Your task to perform on an android device: Search for Mexican restaurants on Maps Image 0: 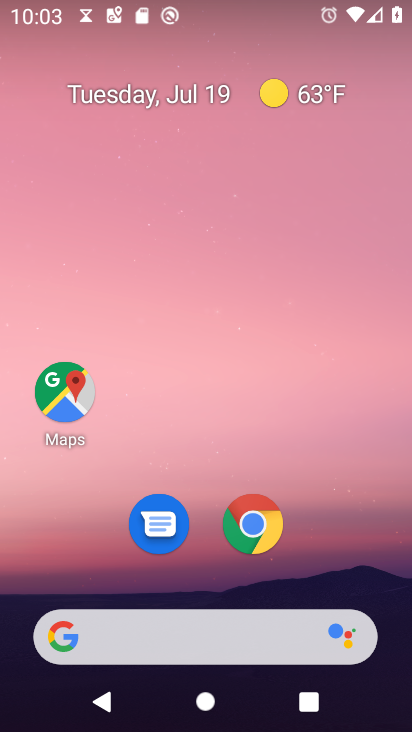
Step 0: press home button
Your task to perform on an android device: Search for Mexican restaurants on Maps Image 1: 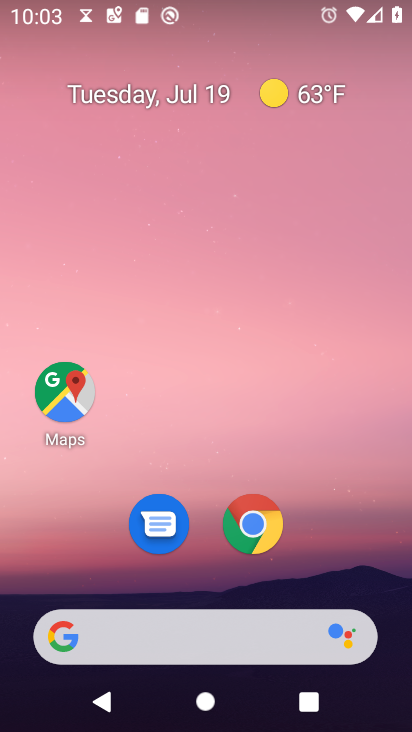
Step 1: click (63, 389)
Your task to perform on an android device: Search for Mexican restaurants on Maps Image 2: 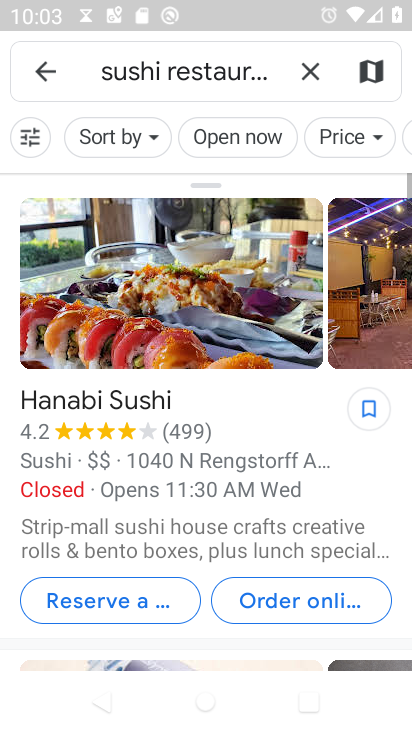
Step 2: click (310, 66)
Your task to perform on an android device: Search for Mexican restaurants on Maps Image 3: 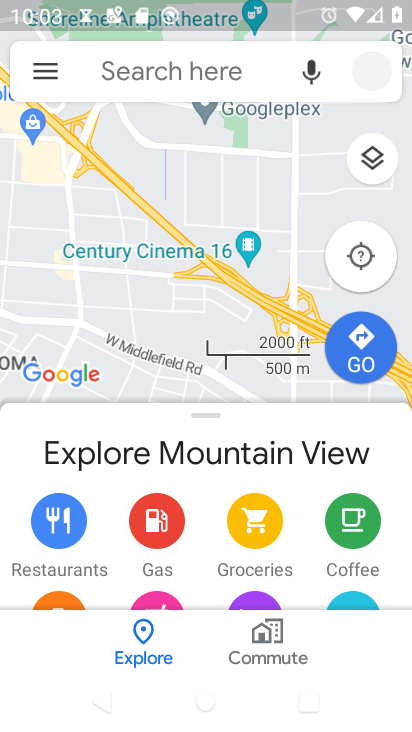
Step 3: click (140, 71)
Your task to perform on an android device: Search for Mexican restaurants on Maps Image 4: 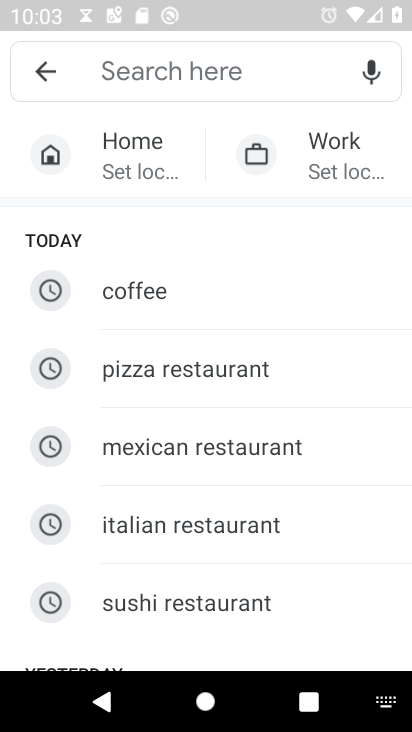
Step 4: click (223, 443)
Your task to perform on an android device: Search for Mexican restaurants on Maps Image 5: 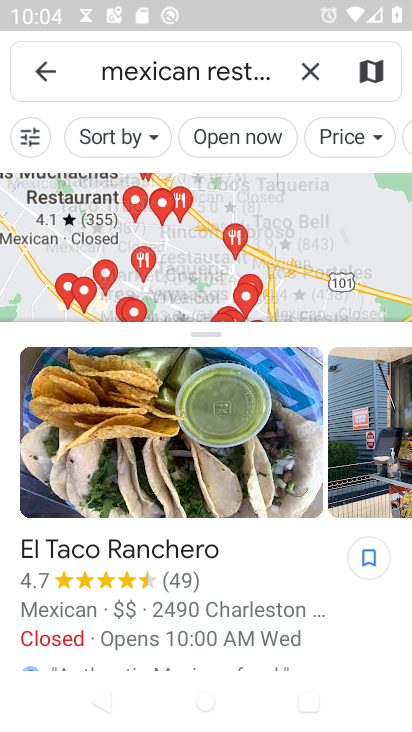
Step 5: task complete